Your task to perform on an android device: Open Yahoo.com Image 0: 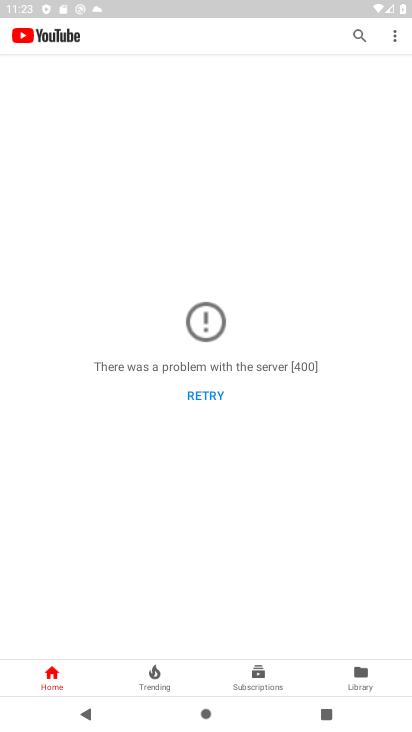
Step 0: press home button
Your task to perform on an android device: Open Yahoo.com Image 1: 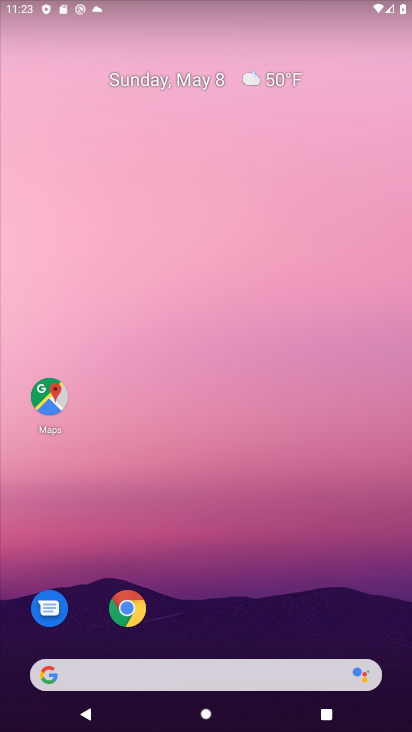
Step 1: drag from (152, 653) to (192, 438)
Your task to perform on an android device: Open Yahoo.com Image 2: 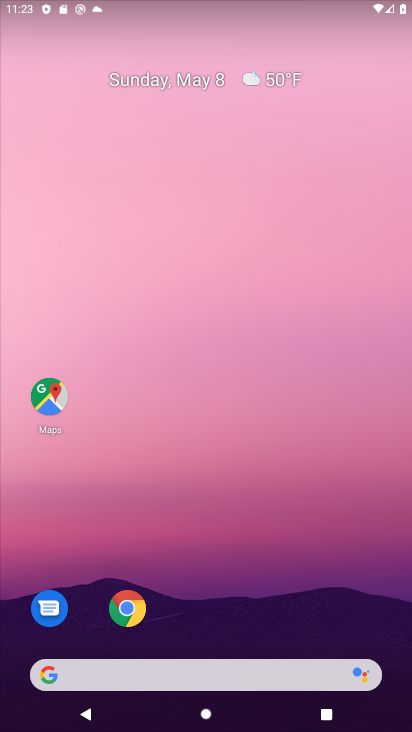
Step 2: click (128, 619)
Your task to perform on an android device: Open Yahoo.com Image 3: 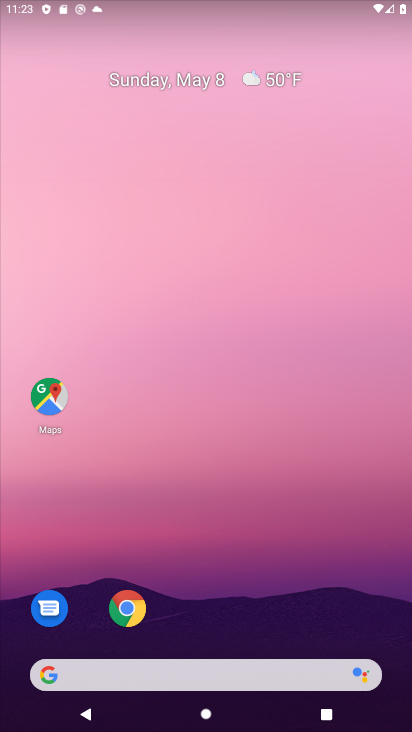
Step 3: click (128, 619)
Your task to perform on an android device: Open Yahoo.com Image 4: 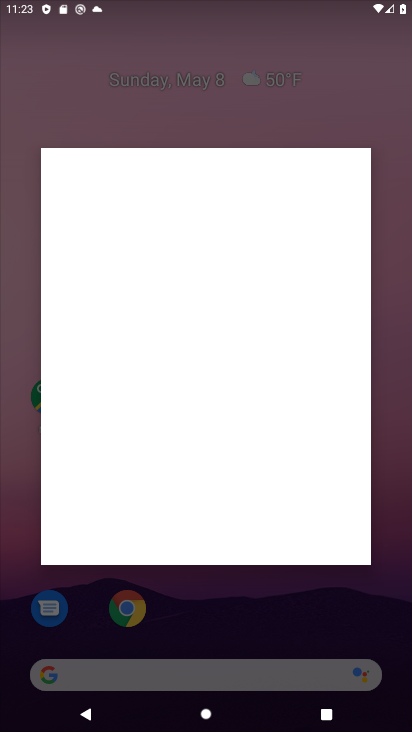
Step 4: click (128, 619)
Your task to perform on an android device: Open Yahoo.com Image 5: 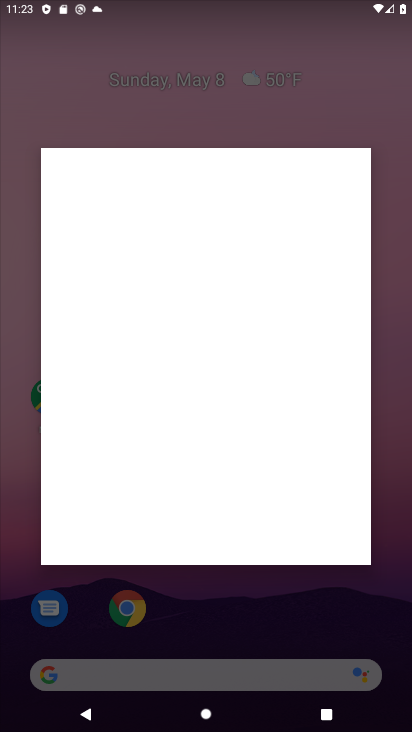
Step 5: click (128, 619)
Your task to perform on an android device: Open Yahoo.com Image 6: 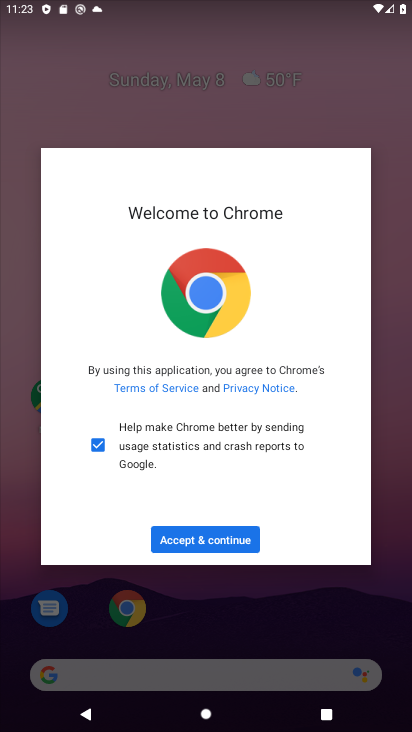
Step 6: click (206, 537)
Your task to perform on an android device: Open Yahoo.com Image 7: 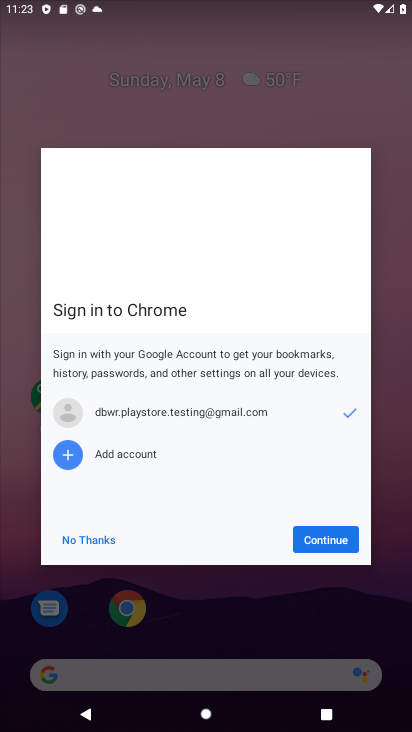
Step 7: click (324, 548)
Your task to perform on an android device: Open Yahoo.com Image 8: 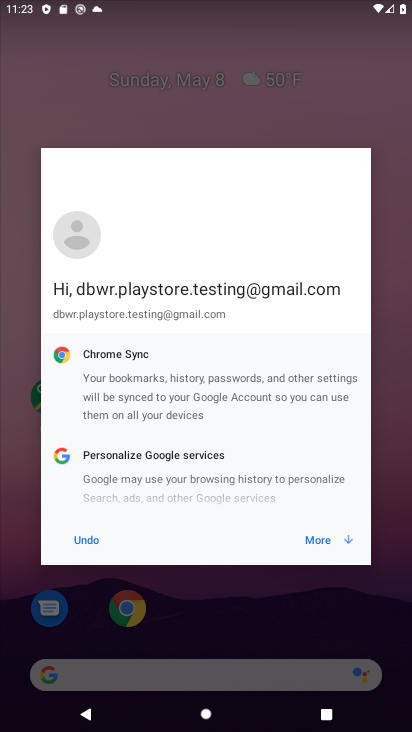
Step 8: click (324, 548)
Your task to perform on an android device: Open Yahoo.com Image 9: 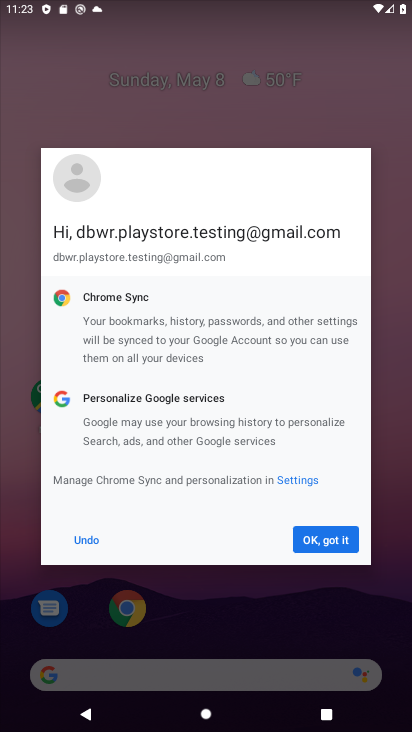
Step 9: click (324, 548)
Your task to perform on an android device: Open Yahoo.com Image 10: 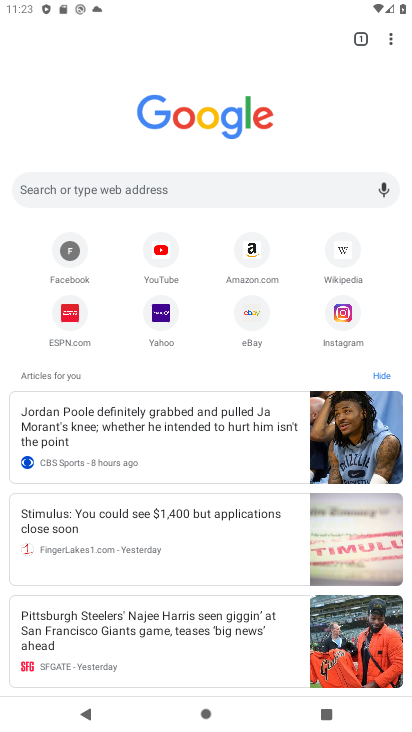
Step 10: click (177, 318)
Your task to perform on an android device: Open Yahoo.com Image 11: 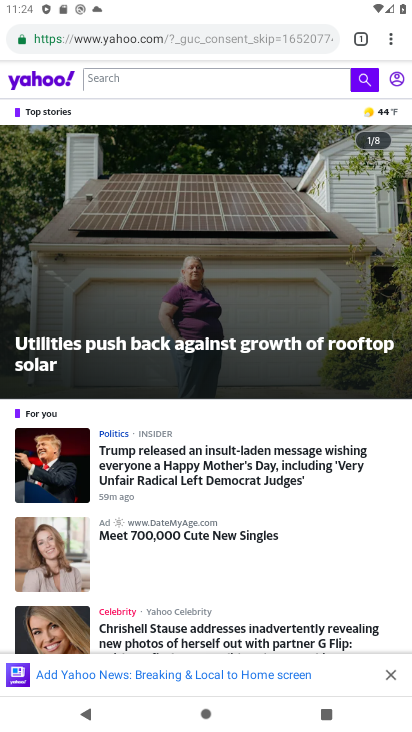
Step 11: task complete